Your task to perform on an android device: See recent photos Image 0: 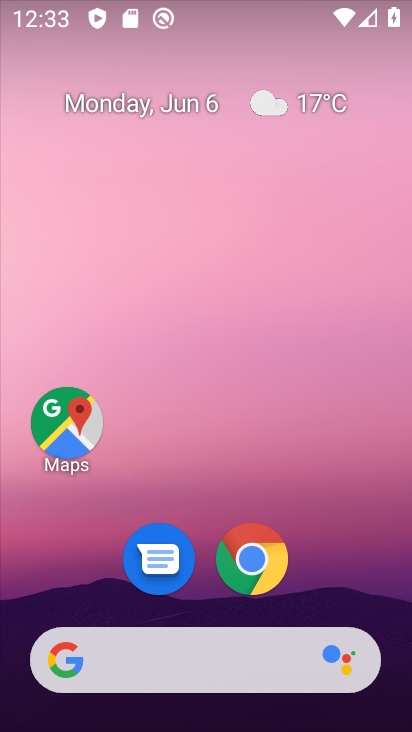
Step 0: drag from (106, 600) to (206, 88)
Your task to perform on an android device: See recent photos Image 1: 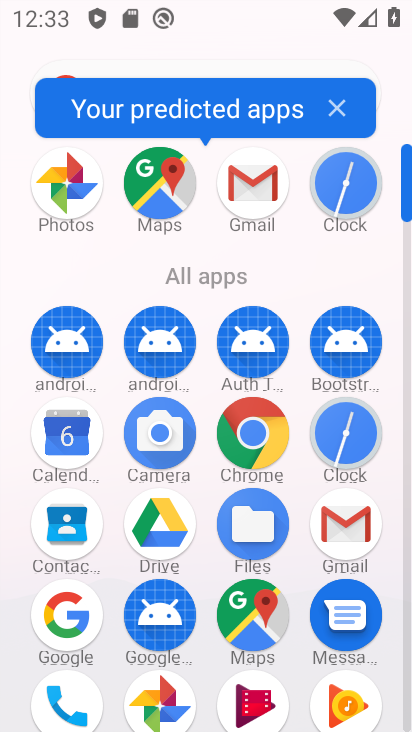
Step 1: drag from (143, 549) to (211, 205)
Your task to perform on an android device: See recent photos Image 2: 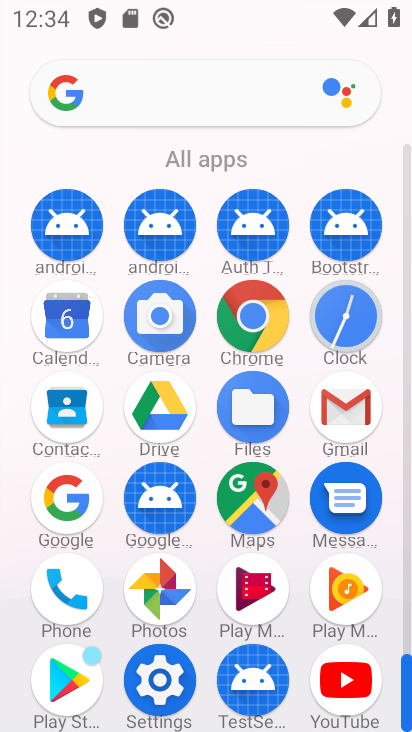
Step 2: click (172, 602)
Your task to perform on an android device: See recent photos Image 3: 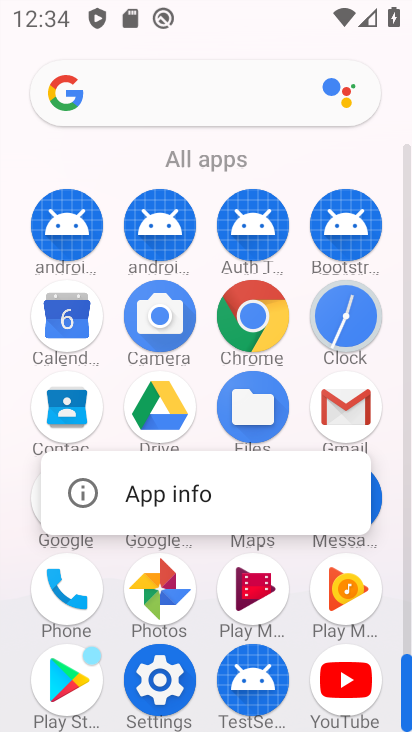
Step 3: click (177, 586)
Your task to perform on an android device: See recent photos Image 4: 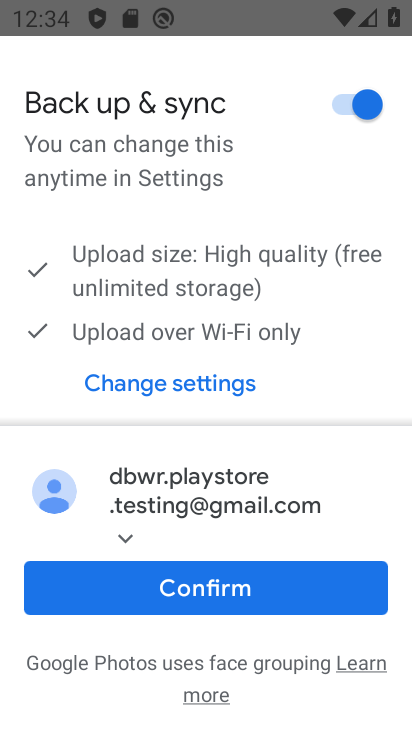
Step 4: click (186, 578)
Your task to perform on an android device: See recent photos Image 5: 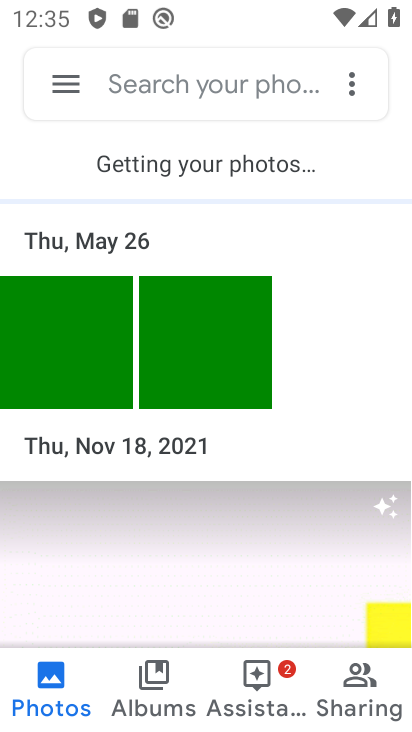
Step 5: task complete